Your task to perform on an android device: open app "Google Docs" (install if not already installed) Image 0: 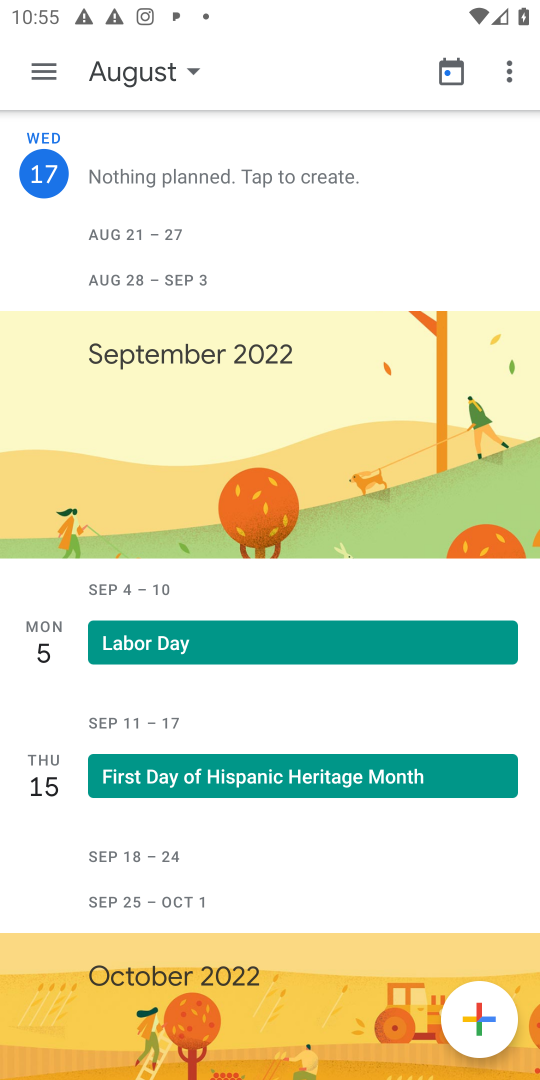
Step 0: press home button
Your task to perform on an android device: open app "Google Docs" (install if not already installed) Image 1: 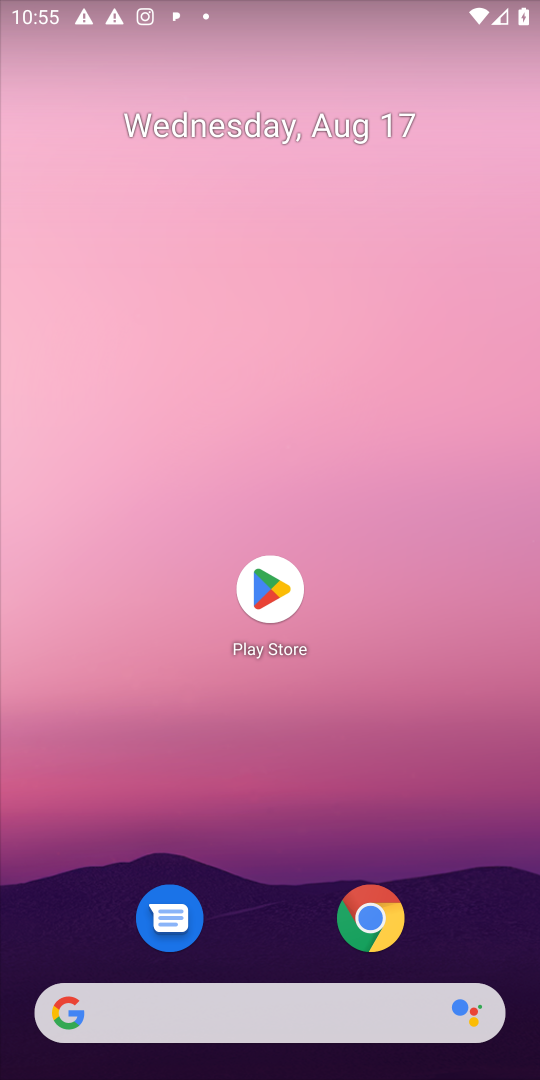
Step 1: click (273, 595)
Your task to perform on an android device: open app "Google Docs" (install if not already installed) Image 2: 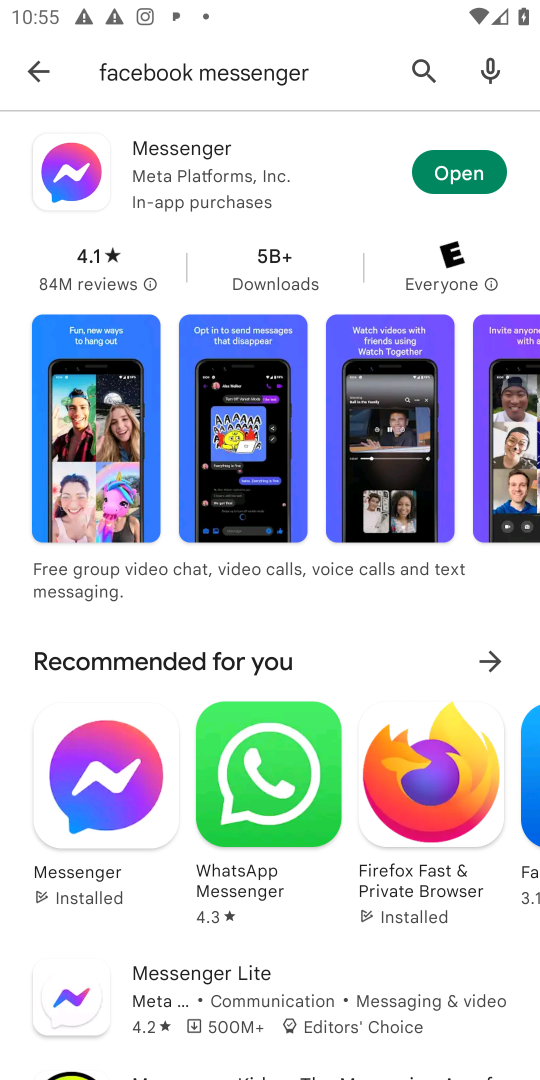
Step 2: click (420, 71)
Your task to perform on an android device: open app "Google Docs" (install if not already installed) Image 3: 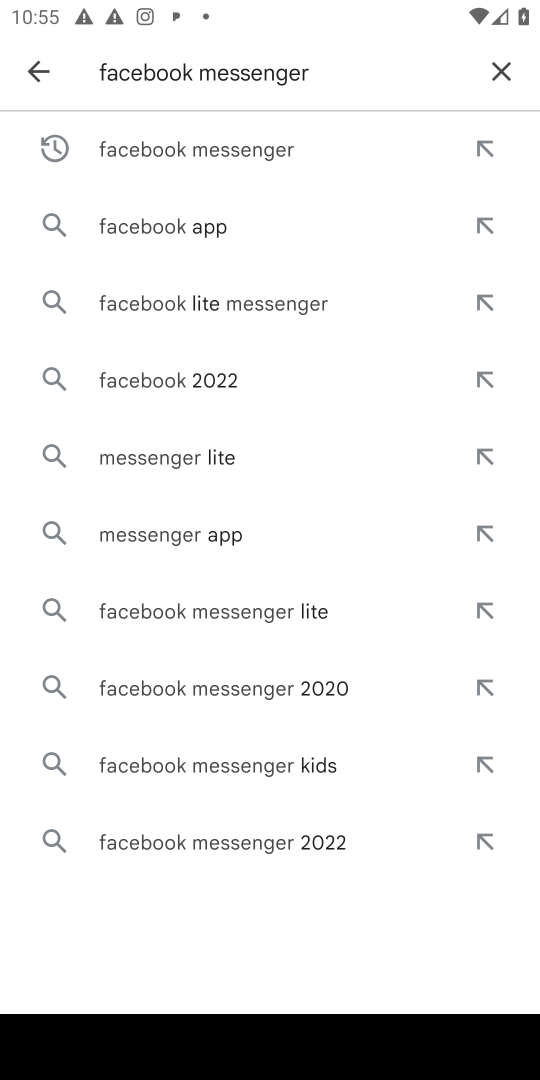
Step 3: click (501, 67)
Your task to perform on an android device: open app "Google Docs" (install if not already installed) Image 4: 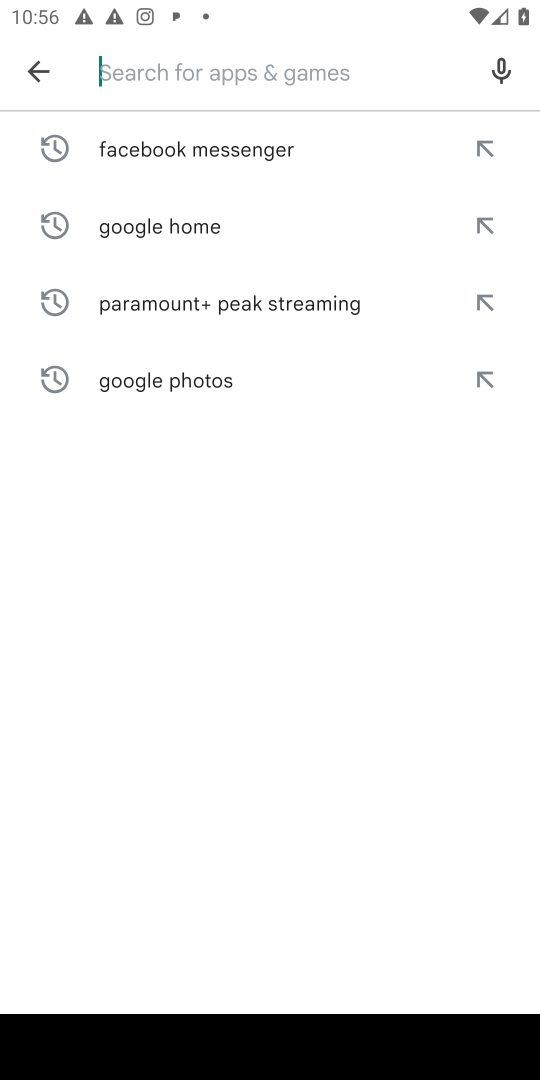
Step 4: type "Google Docs"
Your task to perform on an android device: open app "Google Docs" (install if not already installed) Image 5: 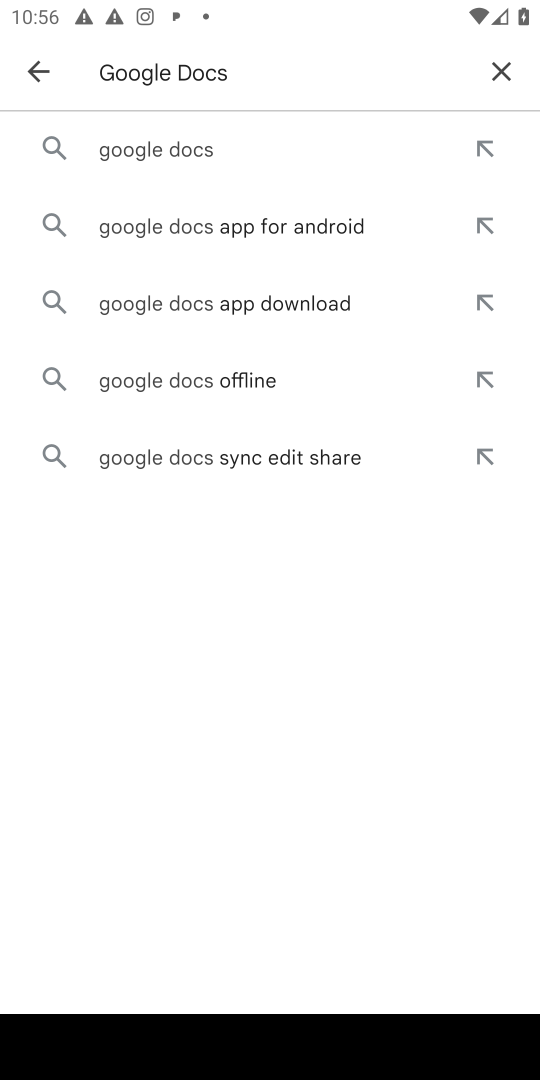
Step 5: click (188, 151)
Your task to perform on an android device: open app "Google Docs" (install if not already installed) Image 6: 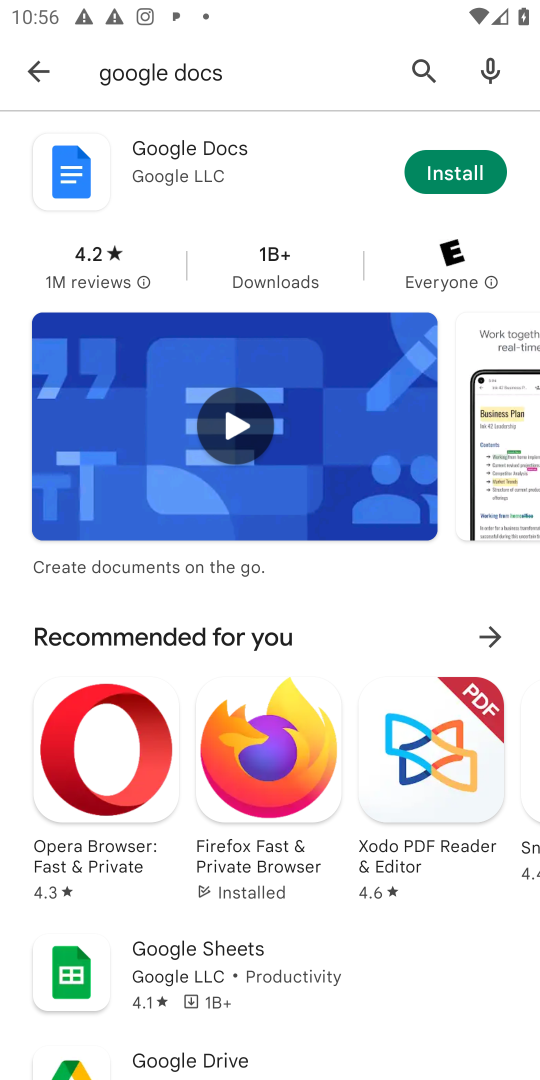
Step 6: click (439, 157)
Your task to perform on an android device: open app "Google Docs" (install if not already installed) Image 7: 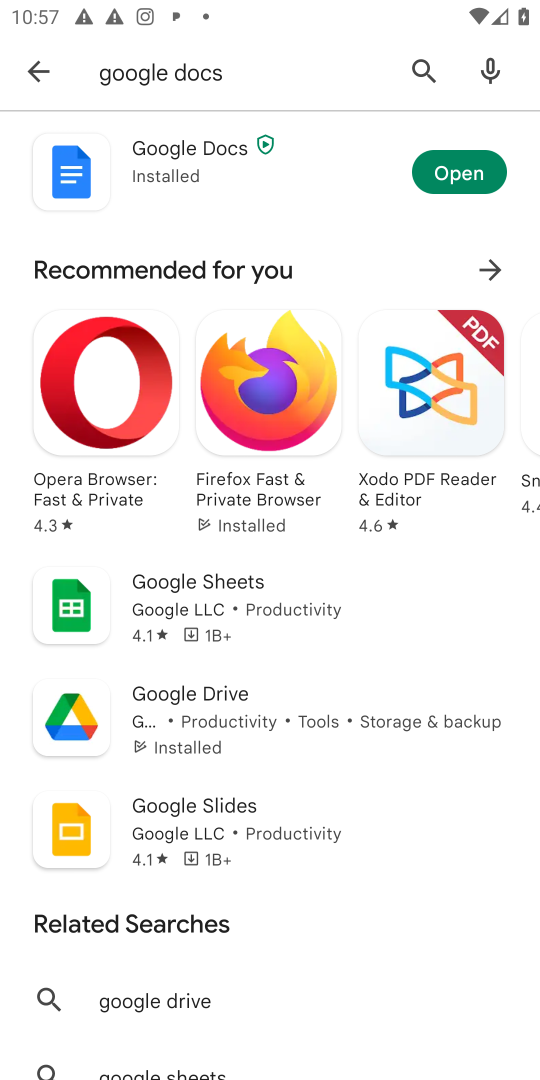
Step 7: click (475, 171)
Your task to perform on an android device: open app "Google Docs" (install if not already installed) Image 8: 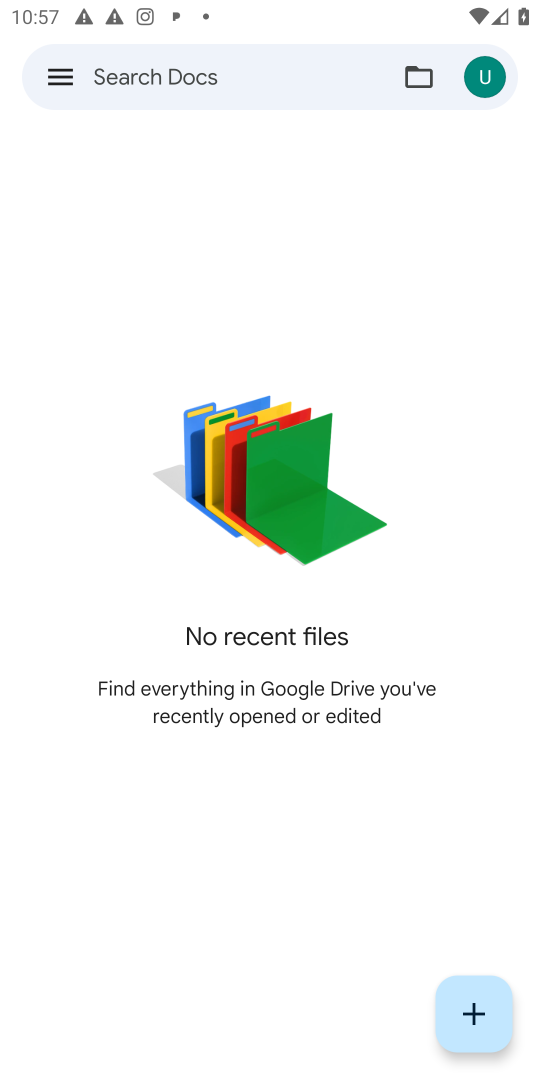
Step 8: task complete